Your task to perform on an android device: What is the news today? Image 0: 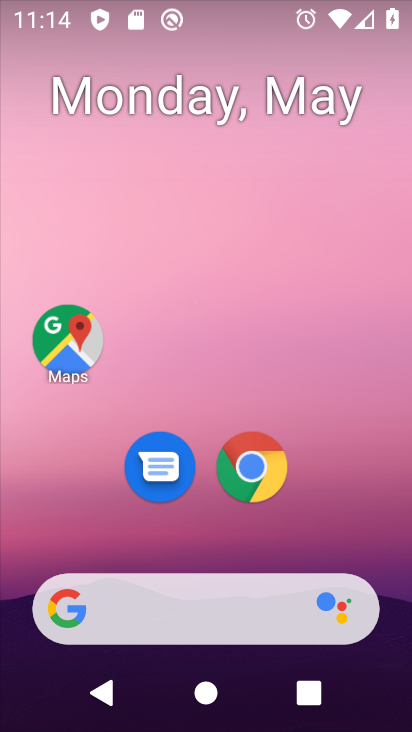
Step 0: drag from (336, 545) to (347, 0)
Your task to perform on an android device: What is the news today? Image 1: 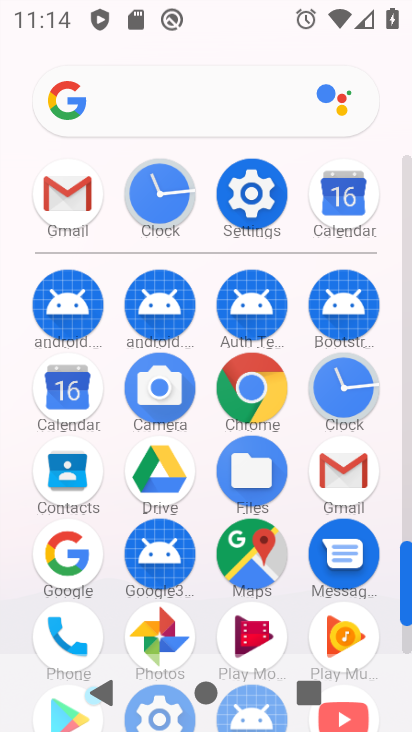
Step 1: click (207, 116)
Your task to perform on an android device: What is the news today? Image 2: 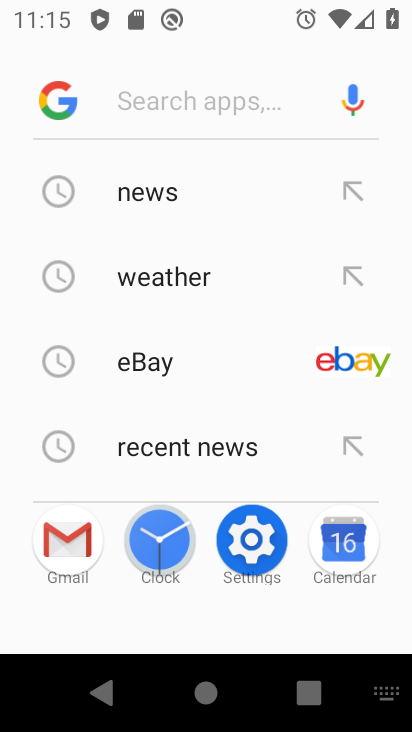
Step 2: click (174, 205)
Your task to perform on an android device: What is the news today? Image 3: 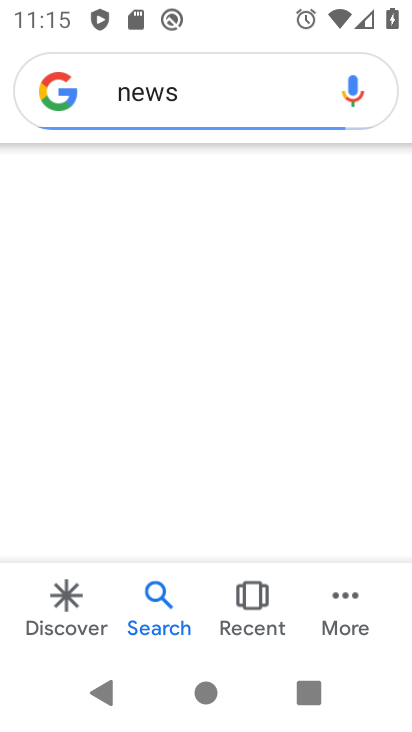
Step 3: task complete